Your task to perform on an android device: Clear all items from cart on walmart. Add lg ultragear to the cart on walmart Image 0: 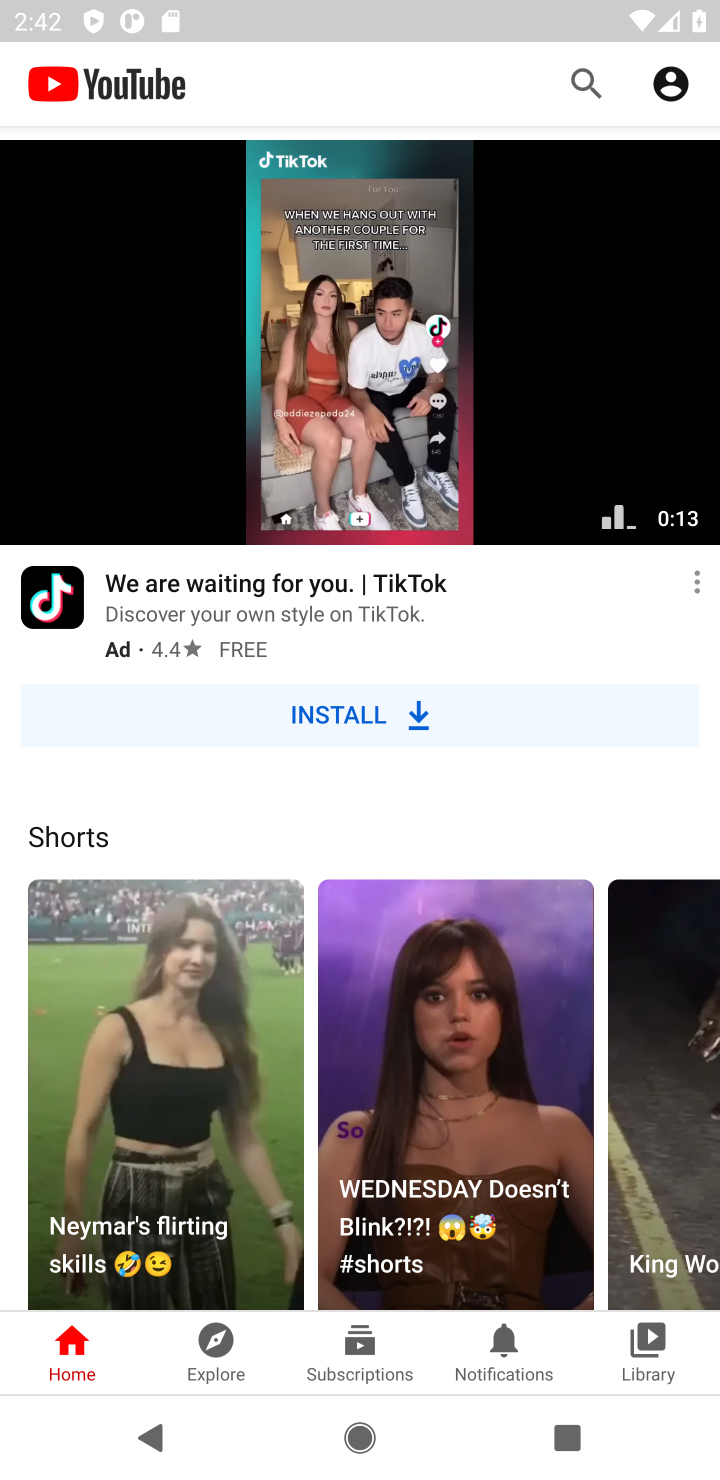
Step 0: press home button
Your task to perform on an android device: Clear all items from cart on walmart. Add lg ultragear to the cart on walmart Image 1: 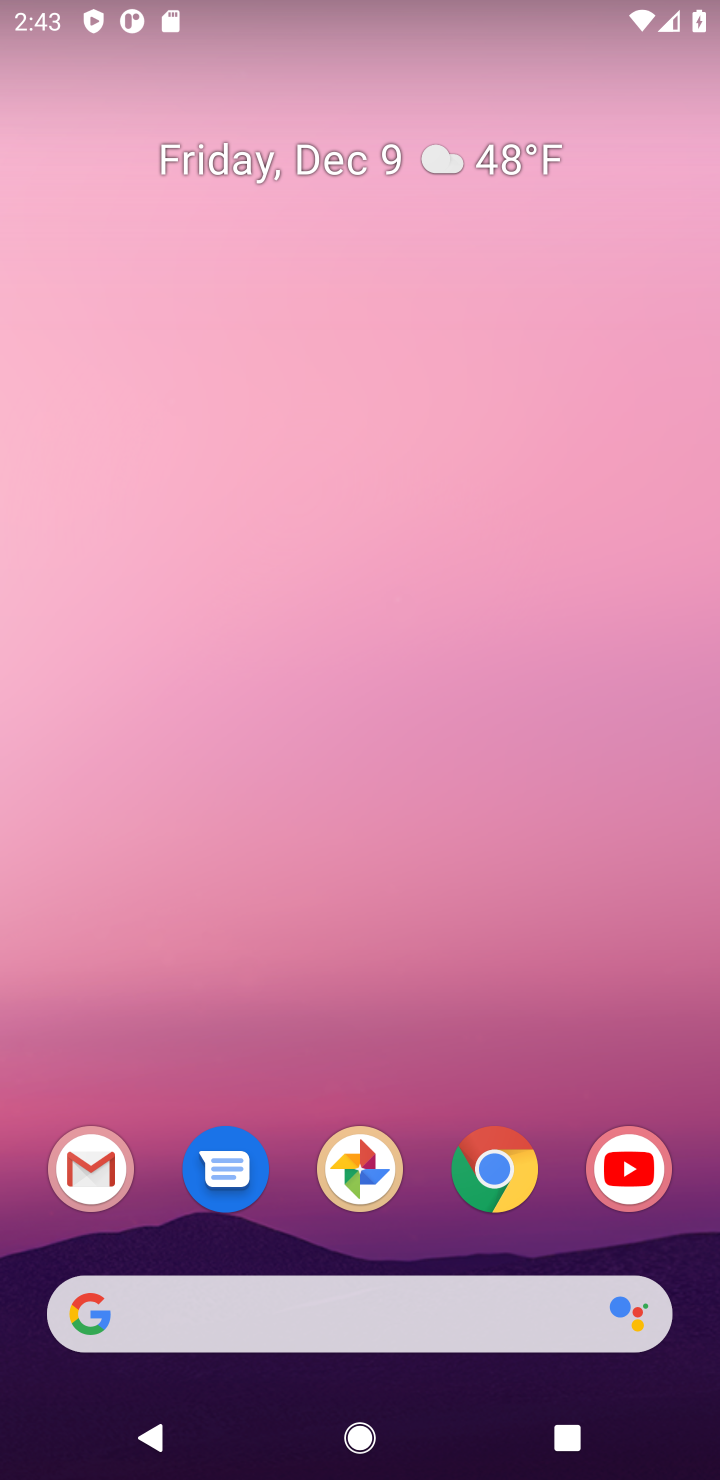
Step 1: click (489, 1168)
Your task to perform on an android device: Clear all items from cart on walmart. Add lg ultragear to the cart on walmart Image 2: 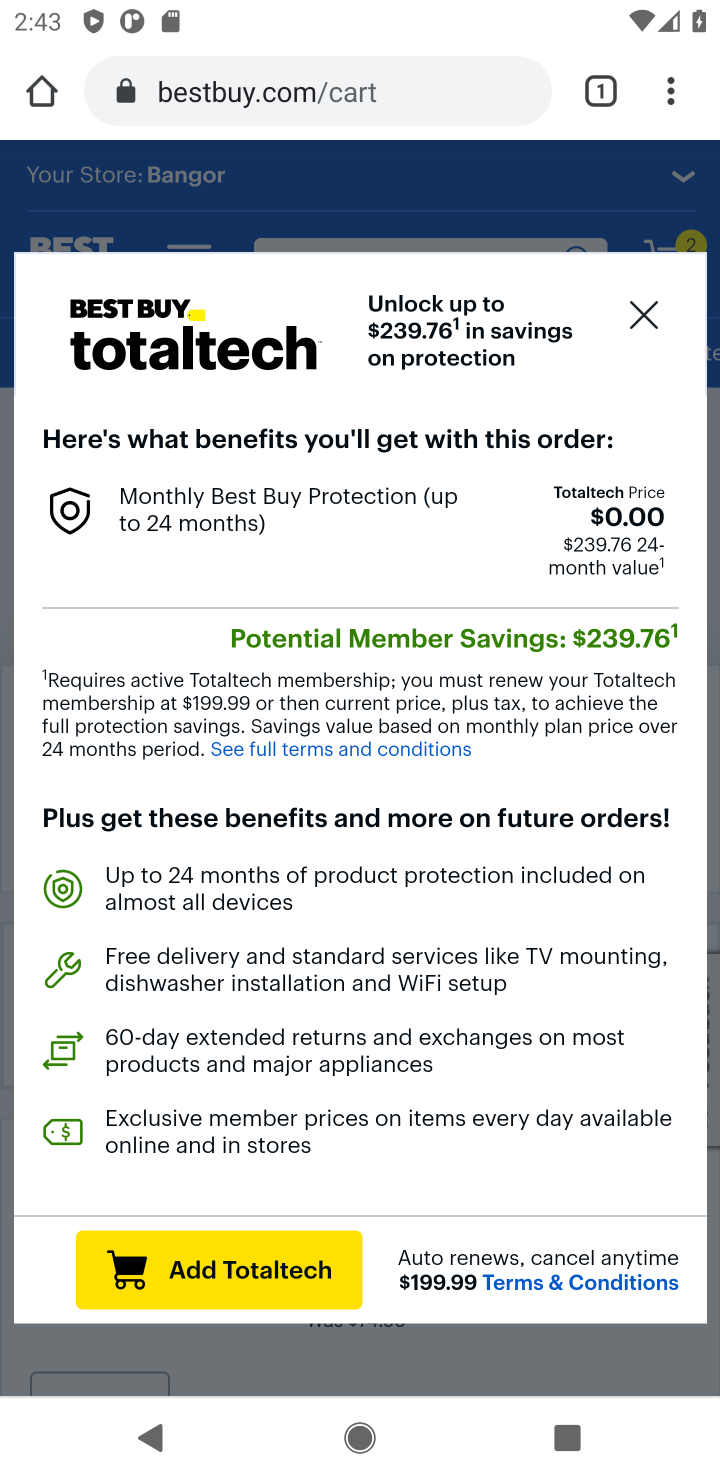
Step 2: click (425, 94)
Your task to perform on an android device: Clear all items from cart on walmart. Add lg ultragear to the cart on walmart Image 3: 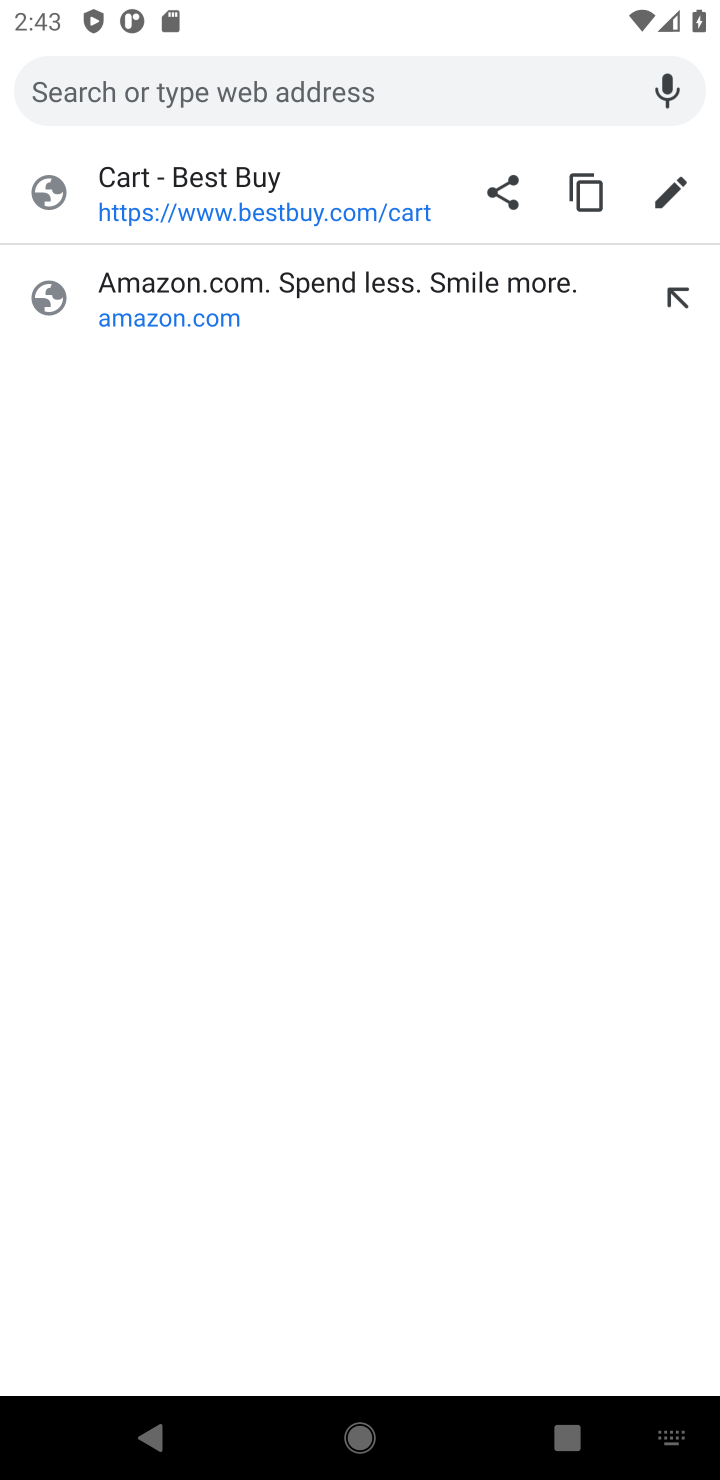
Step 3: press enter
Your task to perform on an android device: Clear all items from cart on walmart. Add lg ultragear to the cart on walmart Image 4: 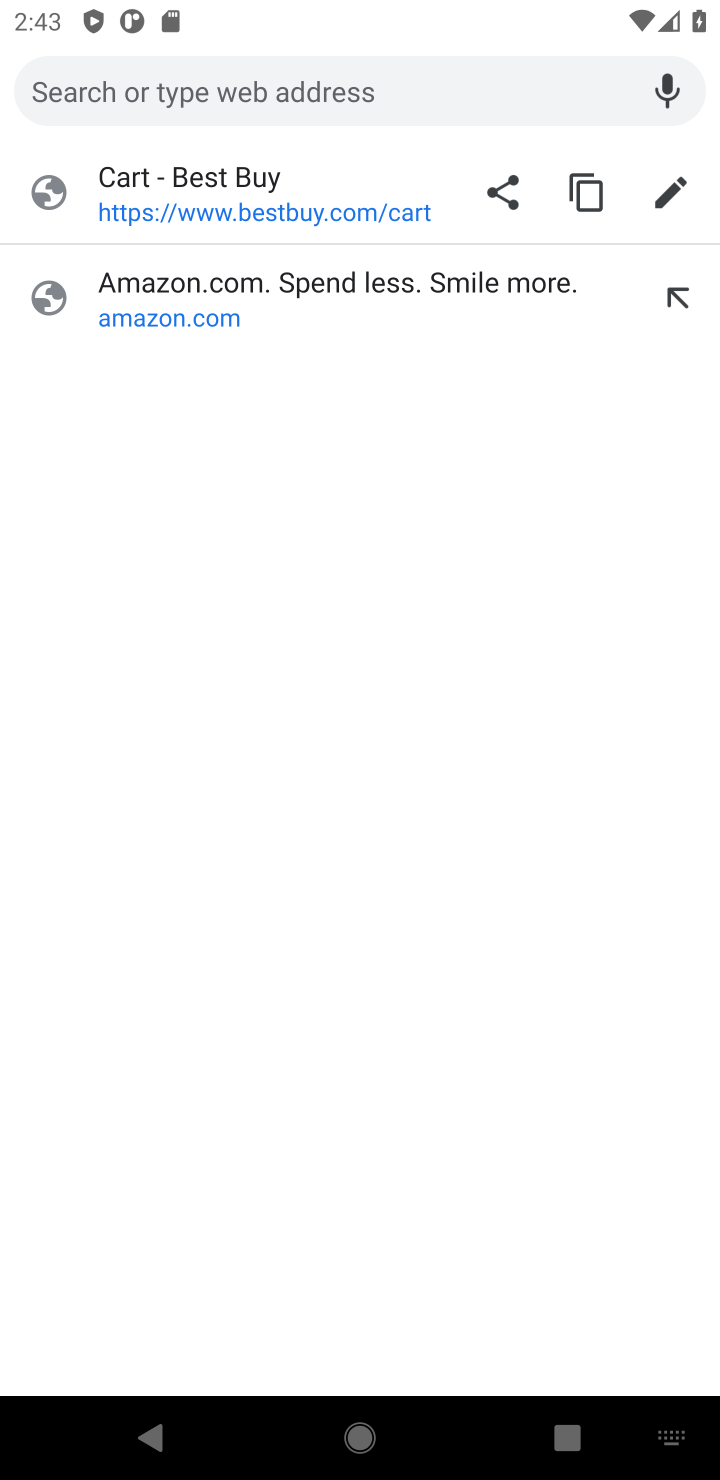
Step 4: type "walmart"
Your task to perform on an android device: Clear all items from cart on walmart. Add lg ultragear to the cart on walmart Image 5: 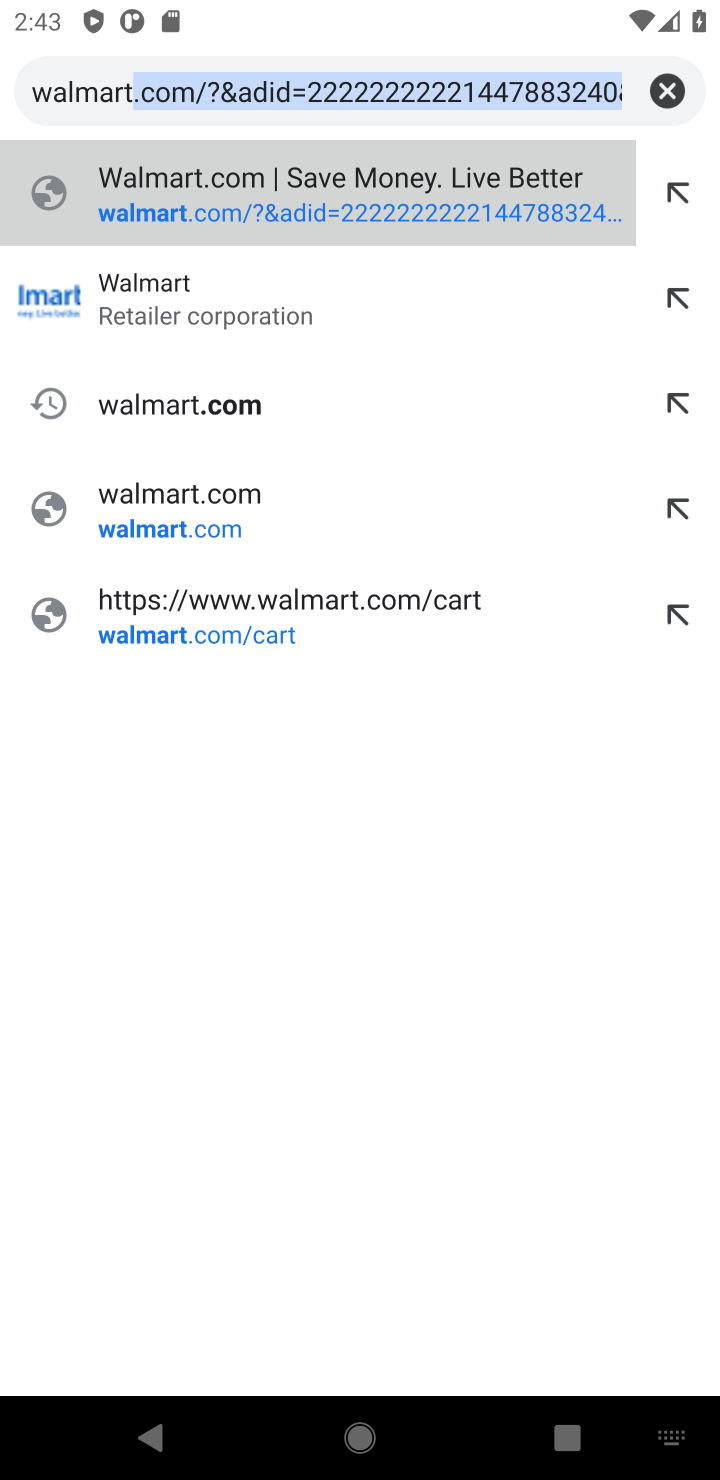
Step 5: click (514, 90)
Your task to perform on an android device: Clear all items from cart on walmart. Add lg ultragear to the cart on walmart Image 6: 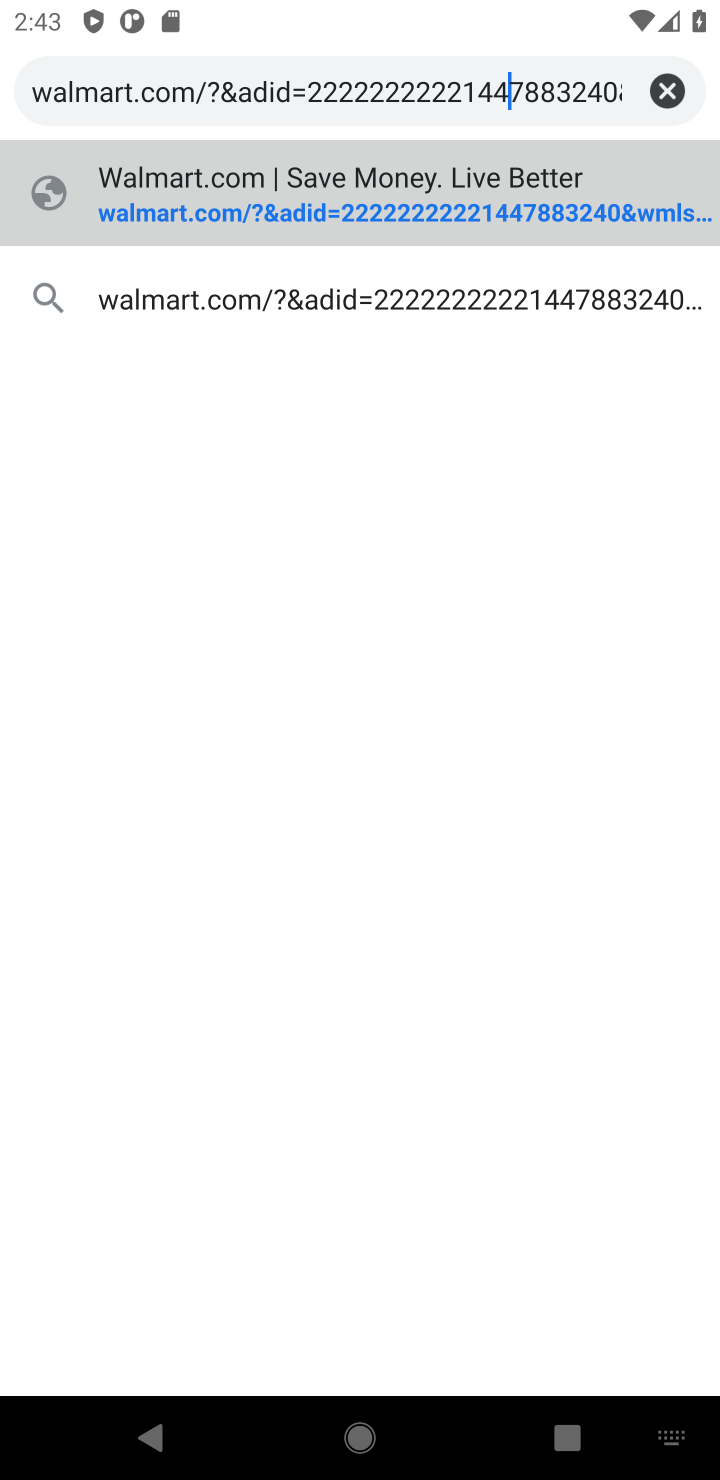
Step 6: press enter
Your task to perform on an android device: Clear all items from cart on walmart. Add lg ultragear to the cart on walmart Image 7: 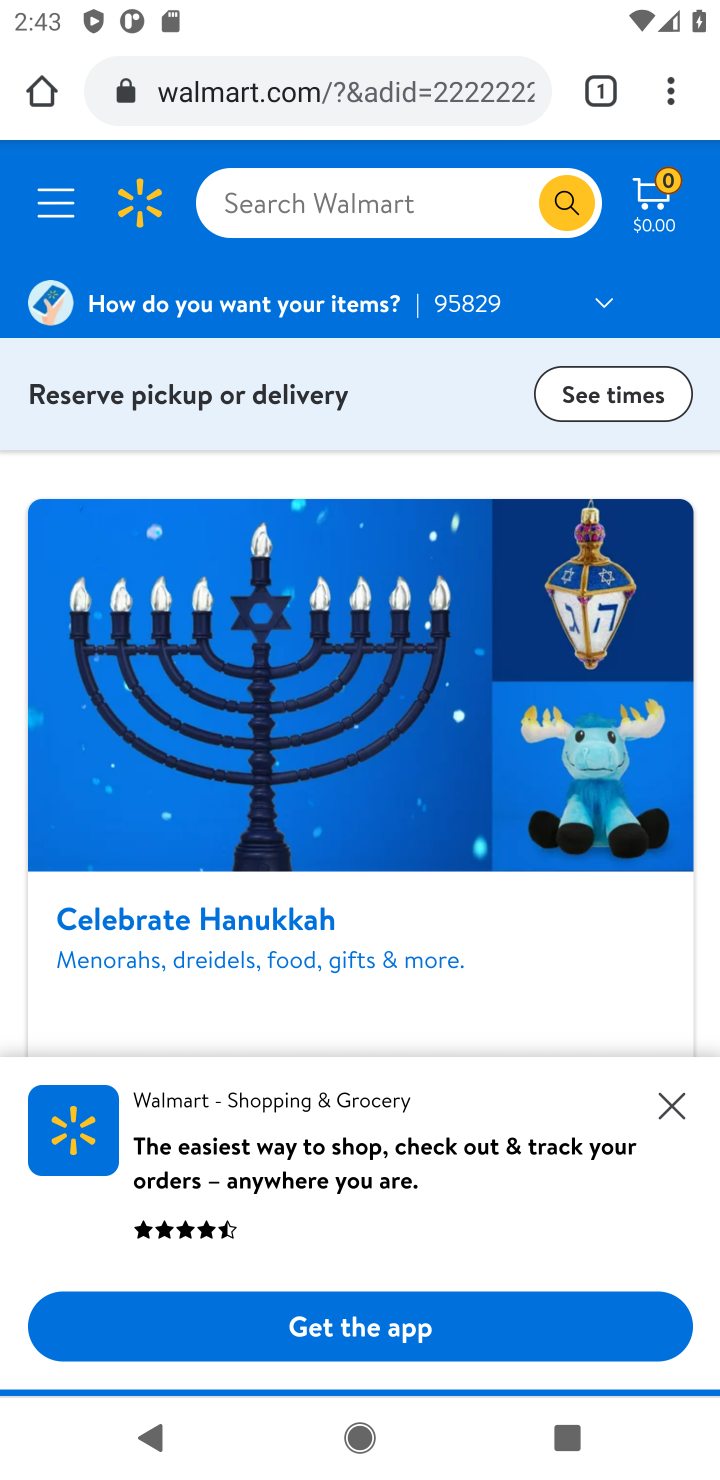
Step 7: click (661, 207)
Your task to perform on an android device: Clear all items from cart on walmart. Add lg ultragear to the cart on walmart Image 8: 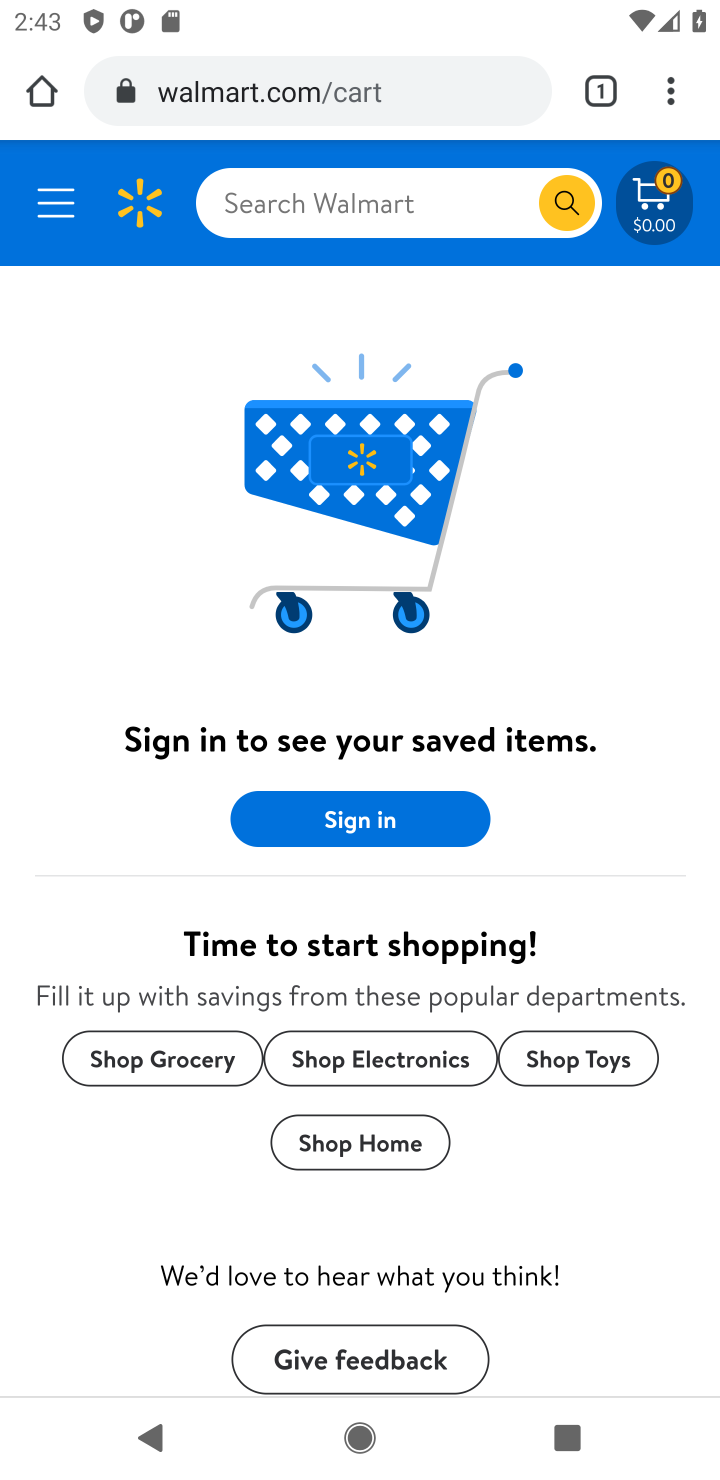
Step 8: click (449, 204)
Your task to perform on an android device: Clear all items from cart on walmart. Add lg ultragear to the cart on walmart Image 9: 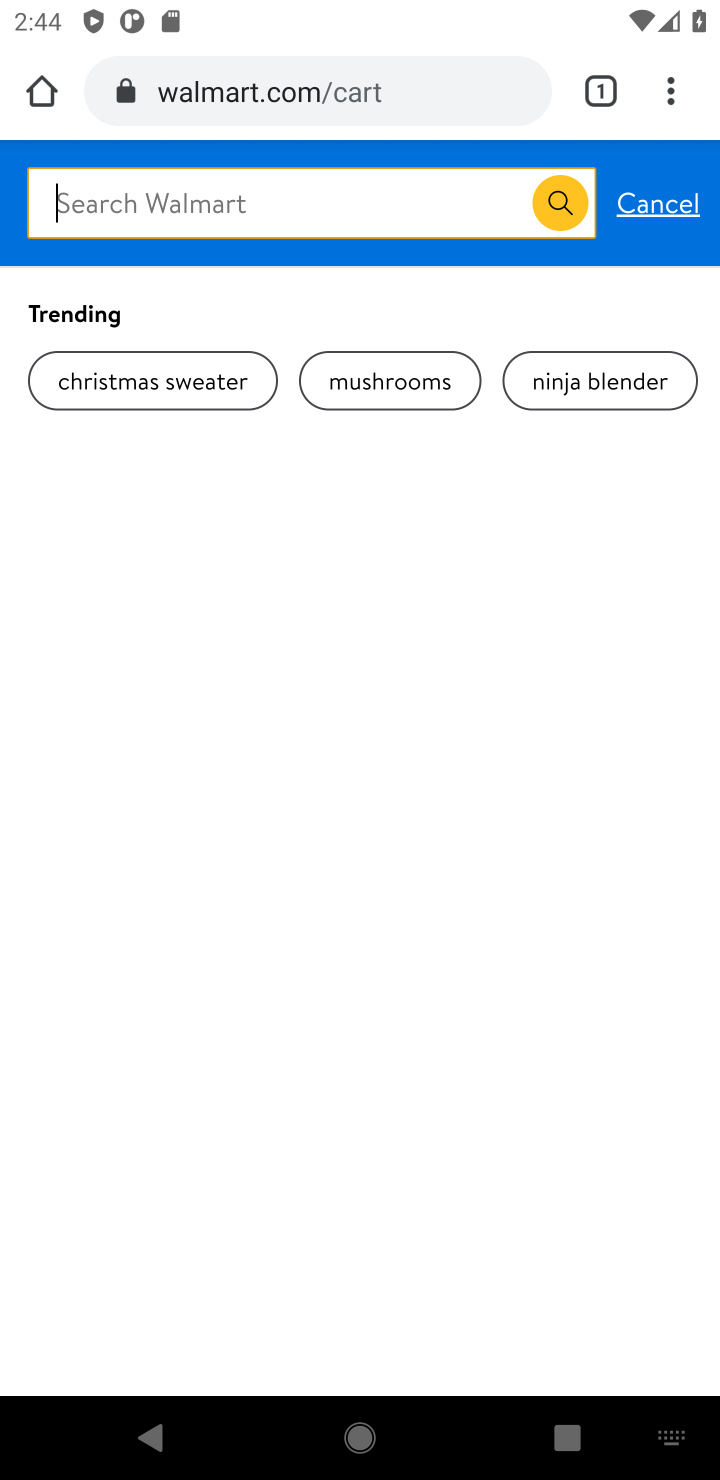
Step 9: press enter
Your task to perform on an android device: Clear all items from cart on walmart. Add lg ultragear to the cart on walmart Image 10: 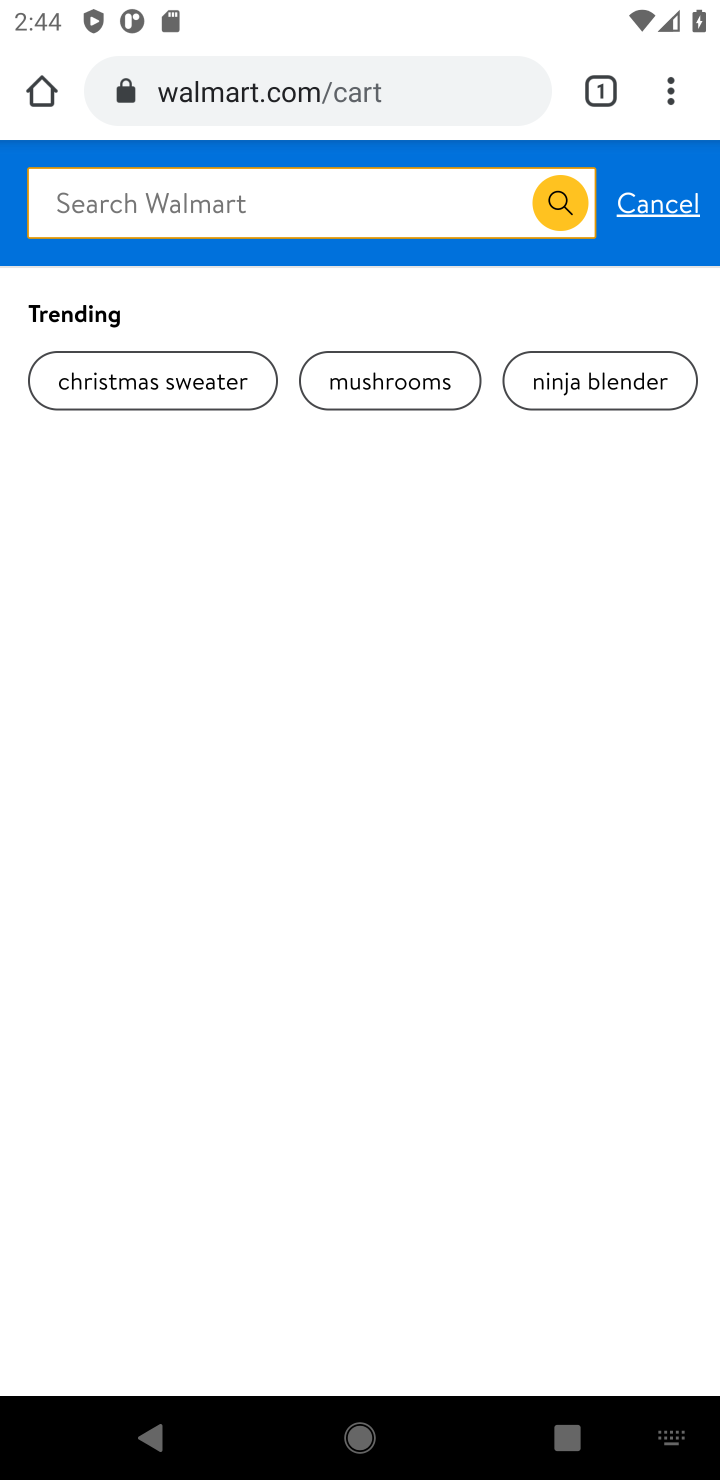
Step 10: type "lg ultragear"
Your task to perform on an android device: Clear all items from cart on walmart. Add lg ultragear to the cart on walmart Image 11: 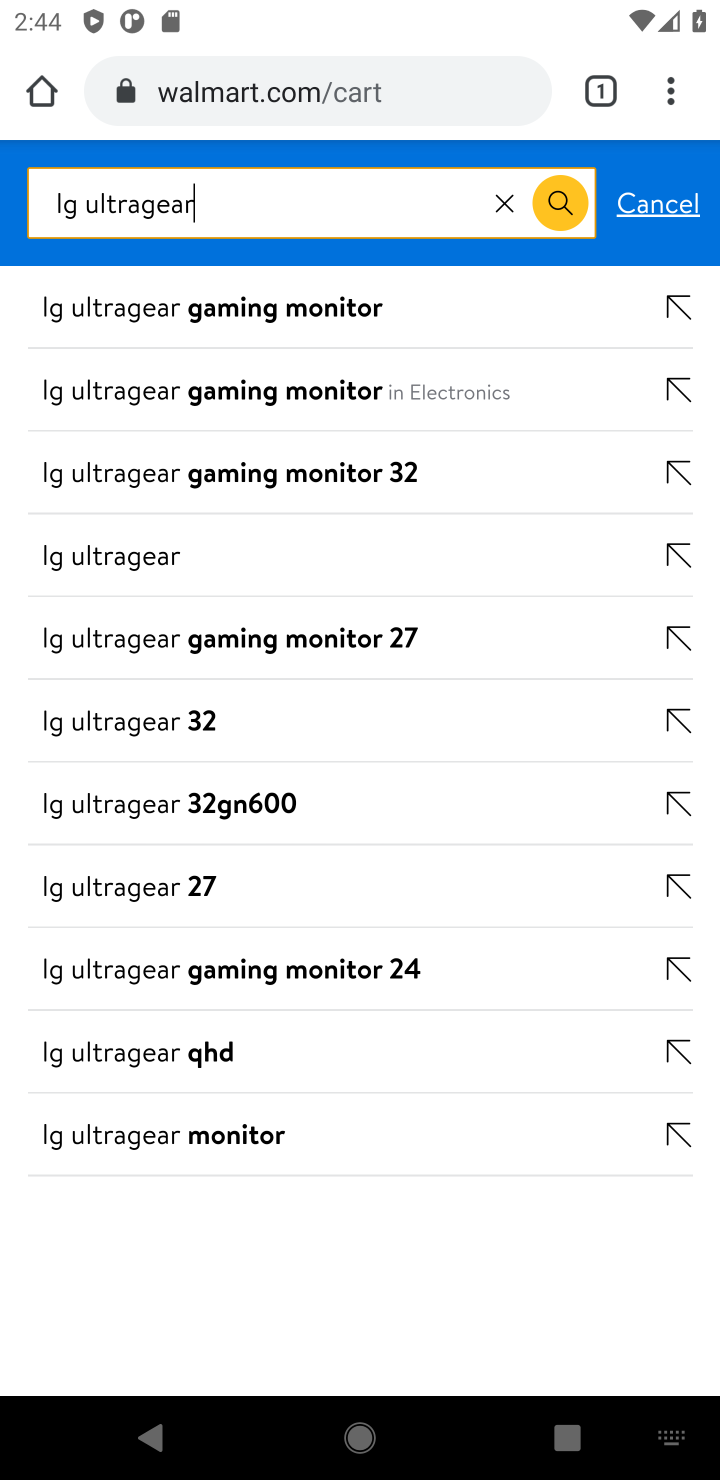
Step 11: click (117, 559)
Your task to perform on an android device: Clear all items from cart on walmart. Add lg ultragear to the cart on walmart Image 12: 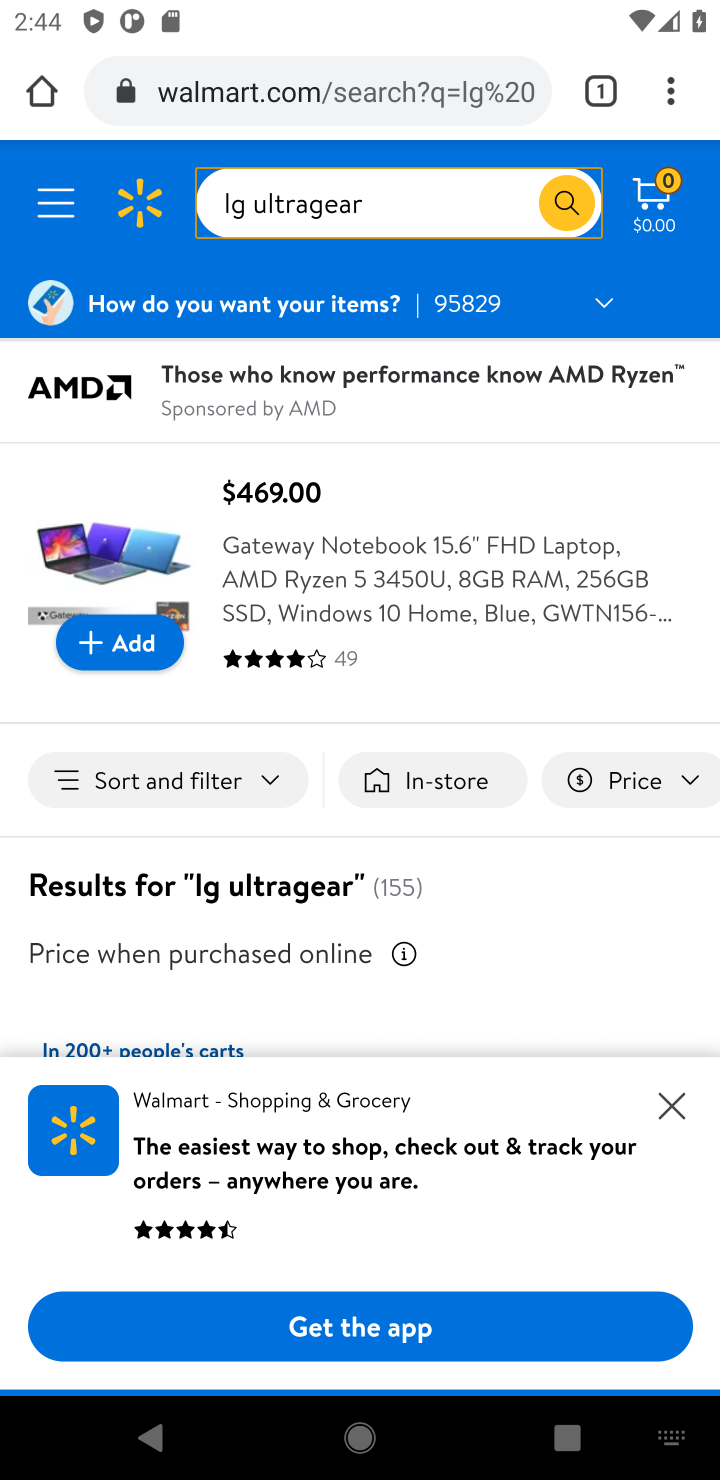
Step 12: drag from (547, 879) to (541, 559)
Your task to perform on an android device: Clear all items from cart on walmart. Add lg ultragear to the cart on walmart Image 13: 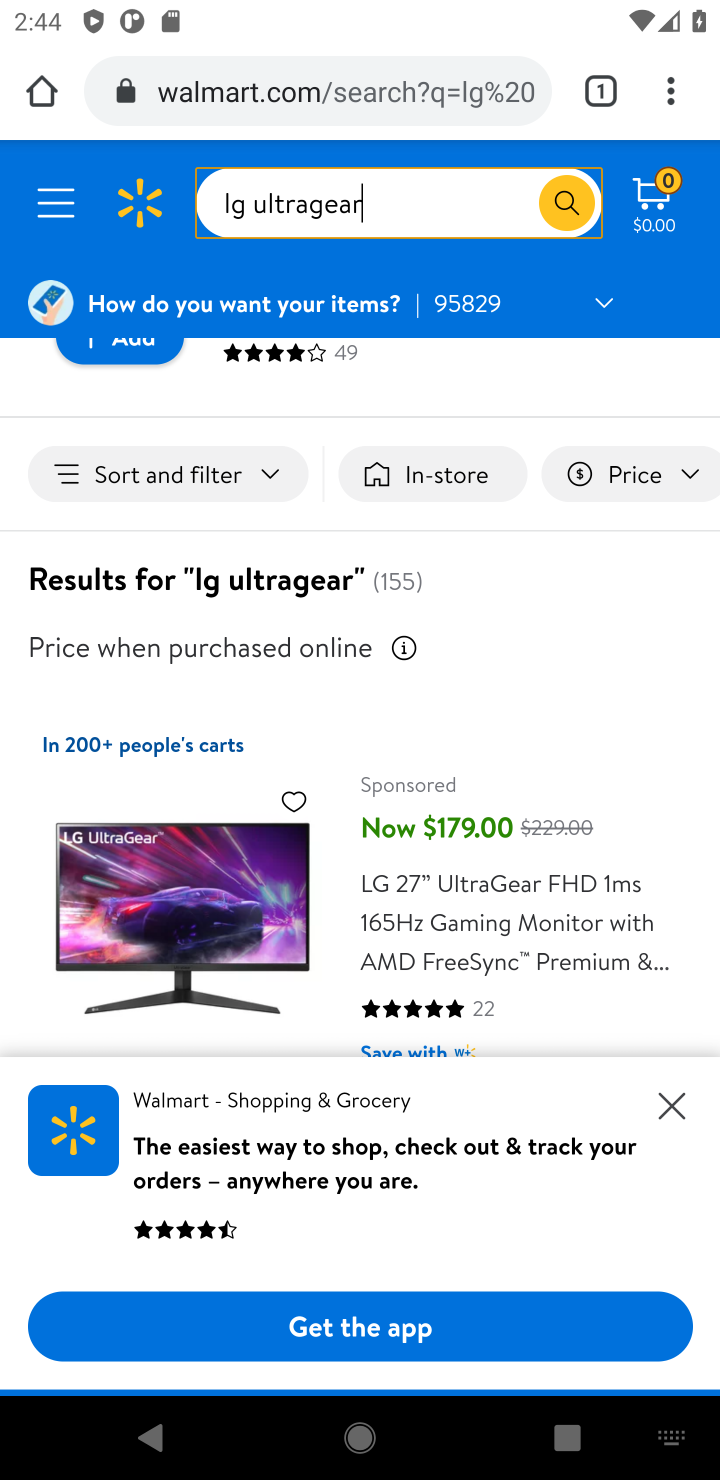
Step 13: click (184, 938)
Your task to perform on an android device: Clear all items from cart on walmart. Add lg ultragear to the cart on walmart Image 14: 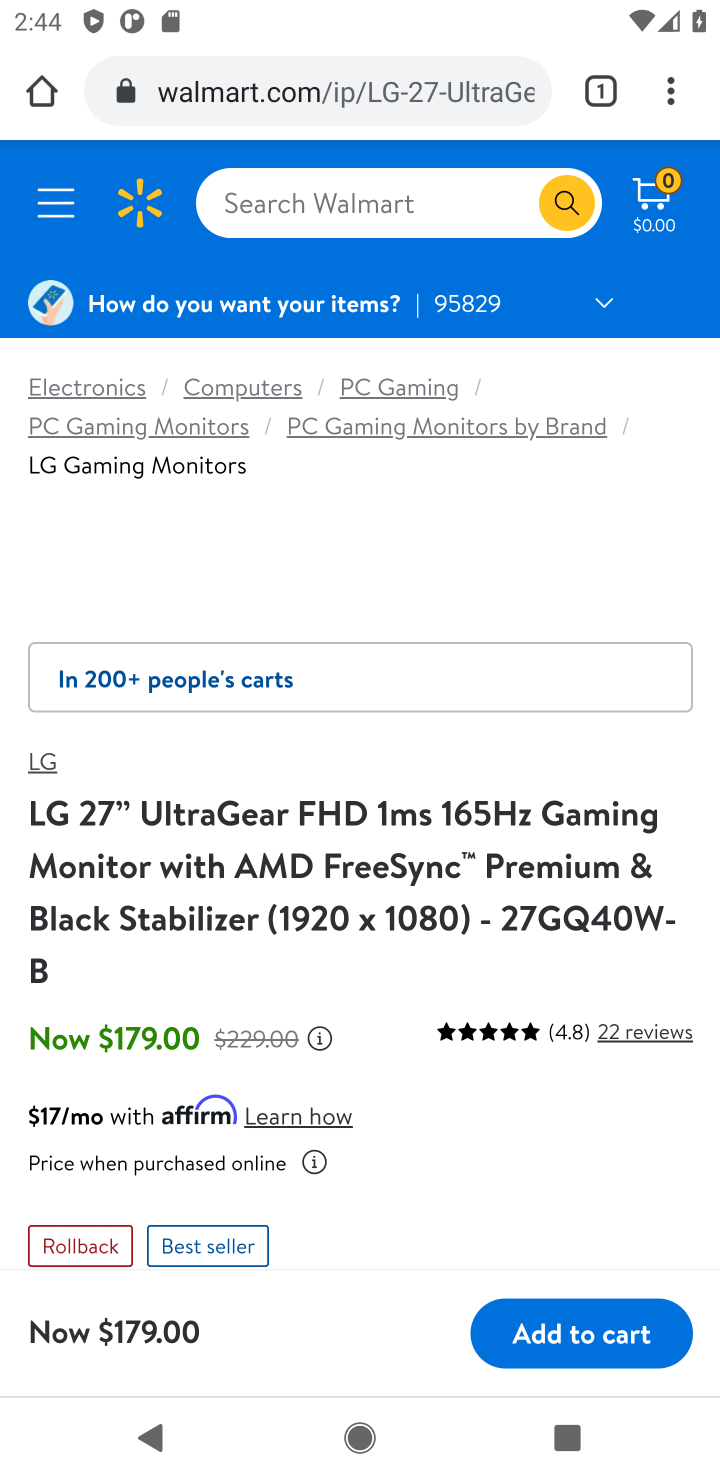
Step 14: click (568, 1332)
Your task to perform on an android device: Clear all items from cart on walmart. Add lg ultragear to the cart on walmart Image 15: 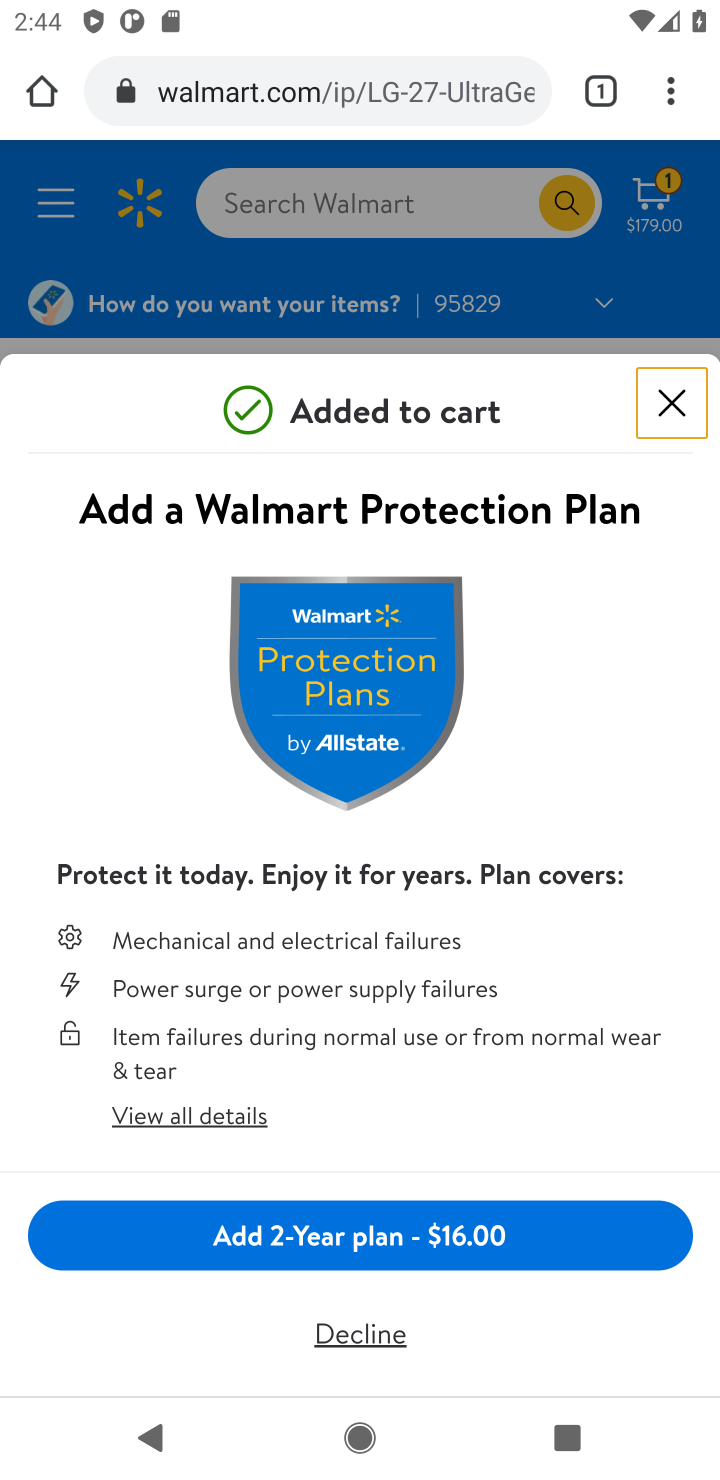
Step 15: task complete